Your task to perform on an android device: Go to location settings Image 0: 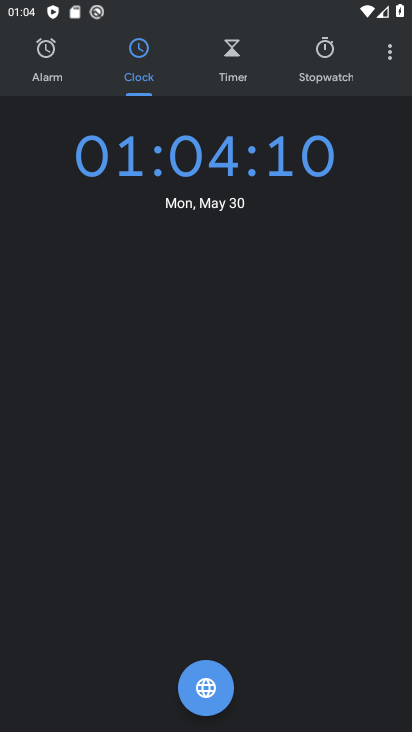
Step 0: press home button
Your task to perform on an android device: Go to location settings Image 1: 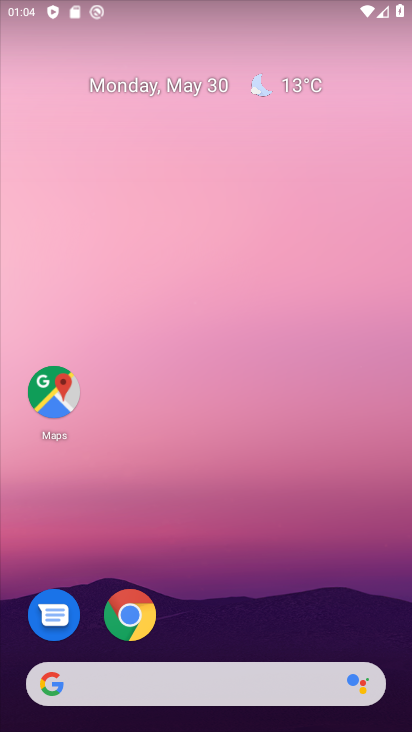
Step 1: drag from (186, 662) to (129, 6)
Your task to perform on an android device: Go to location settings Image 2: 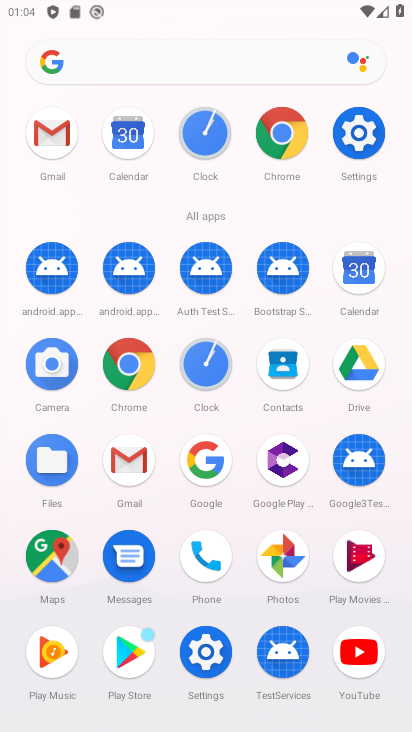
Step 2: click (197, 639)
Your task to perform on an android device: Go to location settings Image 3: 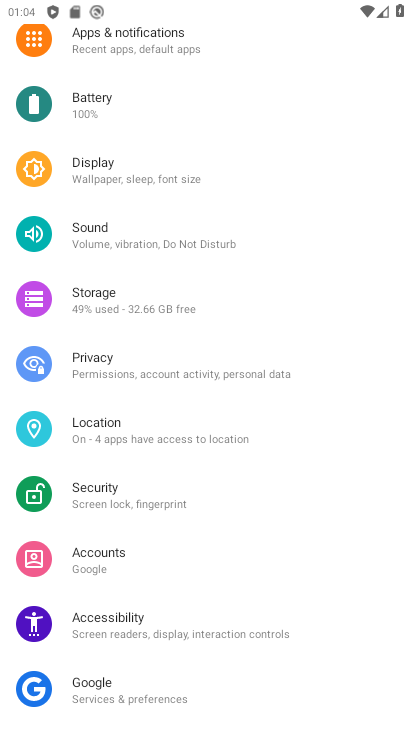
Step 3: click (96, 430)
Your task to perform on an android device: Go to location settings Image 4: 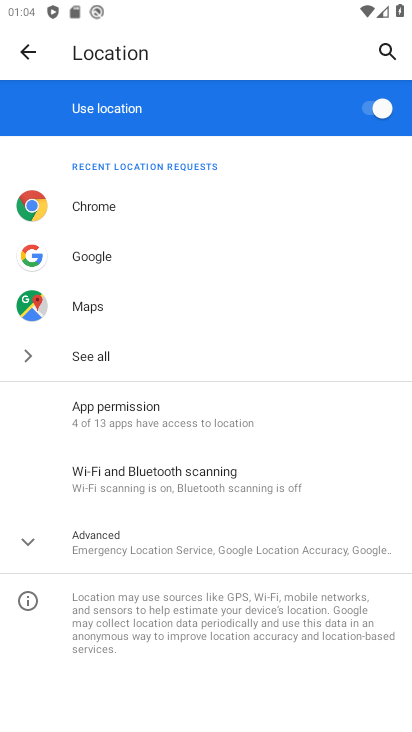
Step 4: click (138, 533)
Your task to perform on an android device: Go to location settings Image 5: 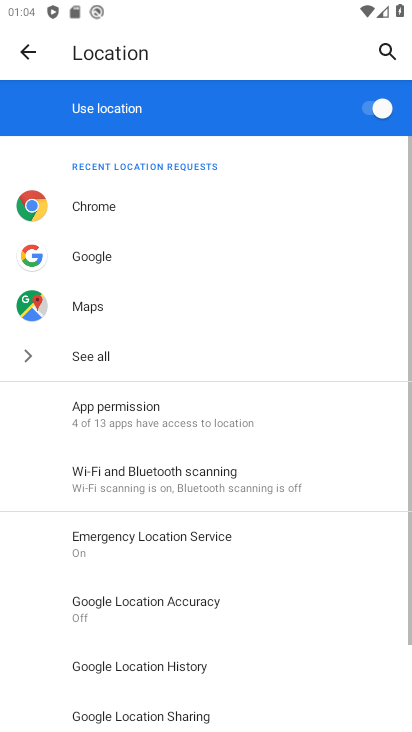
Step 5: task complete